Your task to perform on an android device: Go to ESPN.com Image 0: 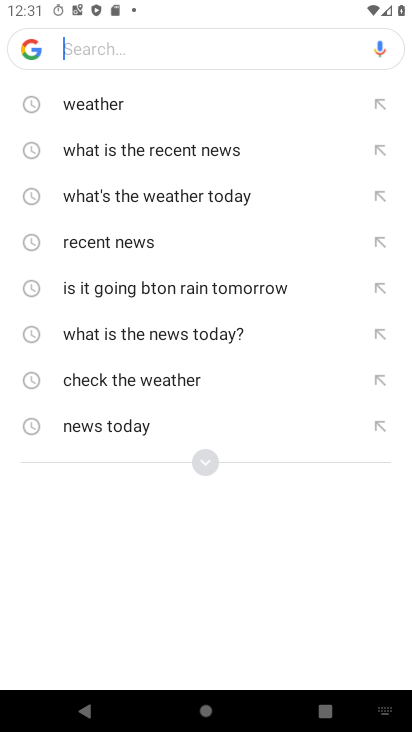
Step 0: press home button
Your task to perform on an android device: Go to ESPN.com Image 1: 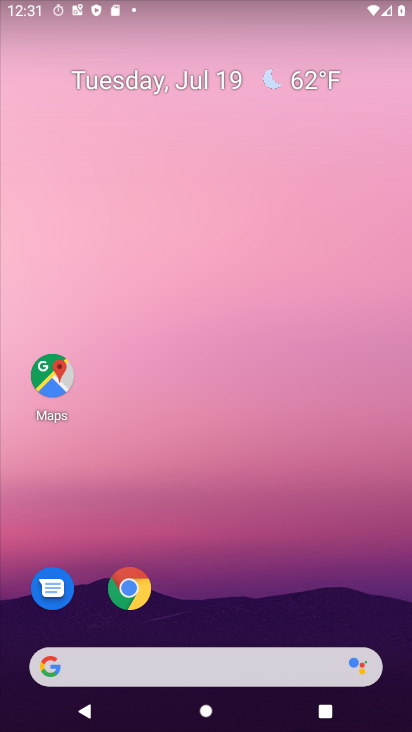
Step 1: click (129, 584)
Your task to perform on an android device: Go to ESPN.com Image 2: 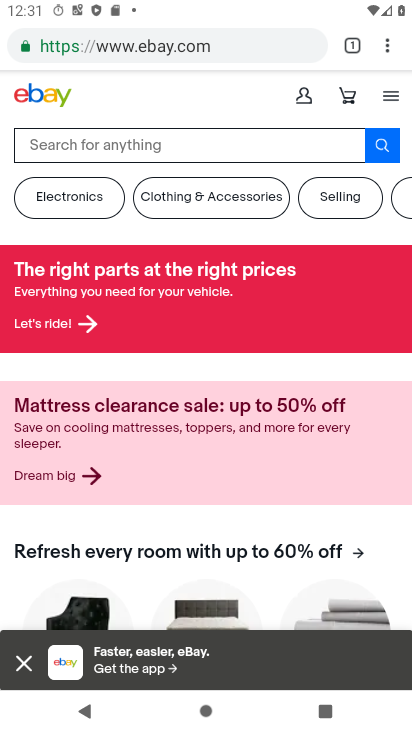
Step 2: click (116, 36)
Your task to perform on an android device: Go to ESPN.com Image 3: 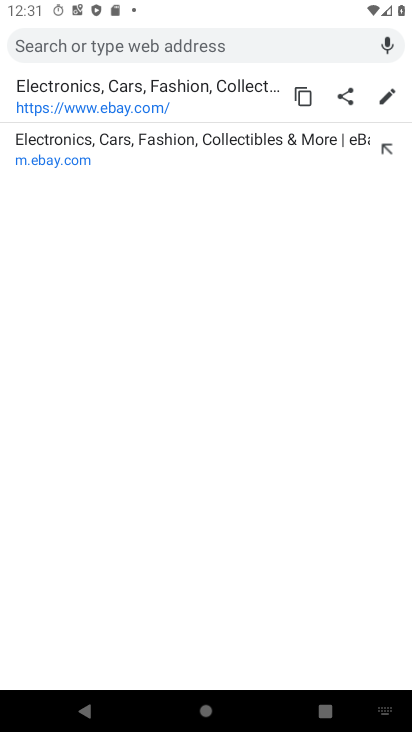
Step 3: type "ESPN,com"
Your task to perform on an android device: Go to ESPN.com Image 4: 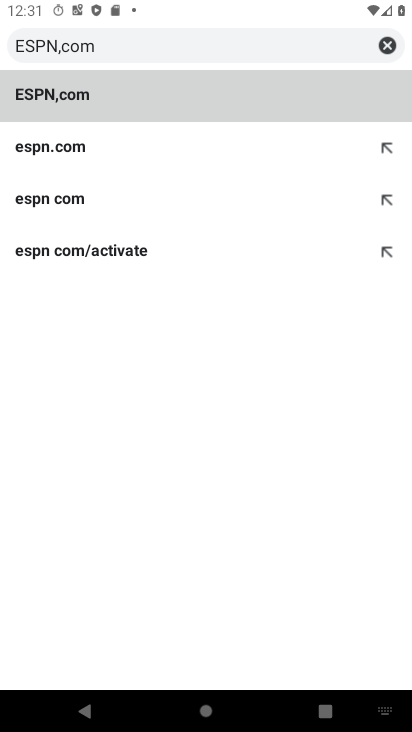
Step 4: click (157, 131)
Your task to perform on an android device: Go to ESPN.com Image 5: 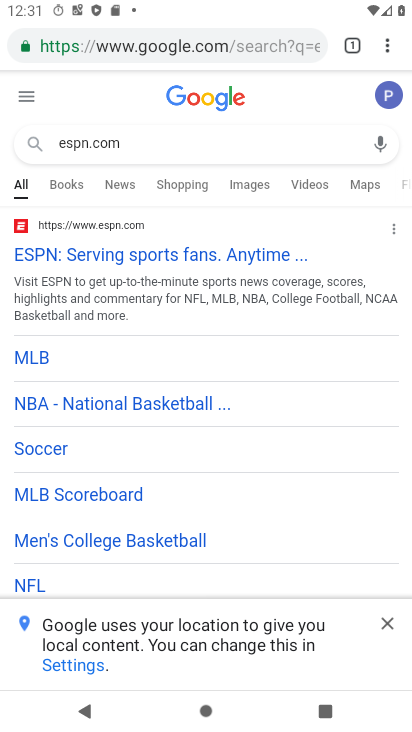
Step 5: click (69, 258)
Your task to perform on an android device: Go to ESPN.com Image 6: 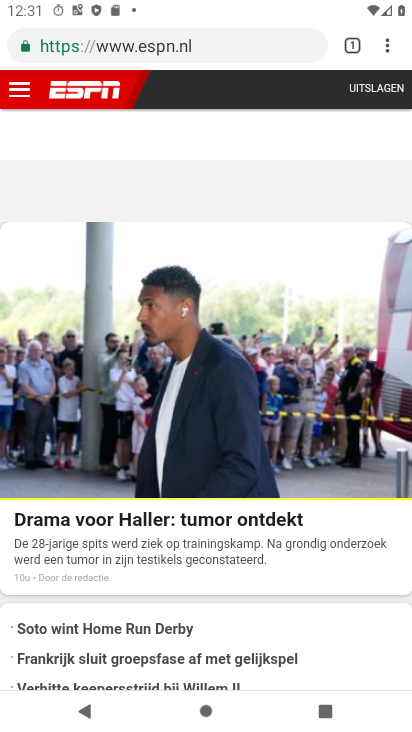
Step 6: task complete